Your task to perform on an android device: Go to Maps Image 0: 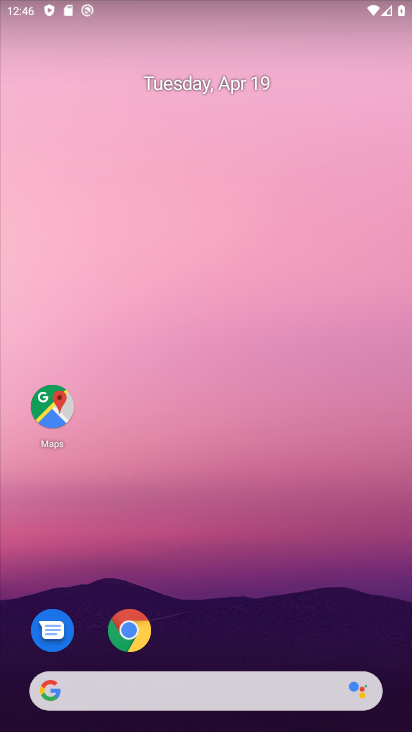
Step 0: drag from (223, 631) to (333, 121)
Your task to perform on an android device: Go to Maps Image 1: 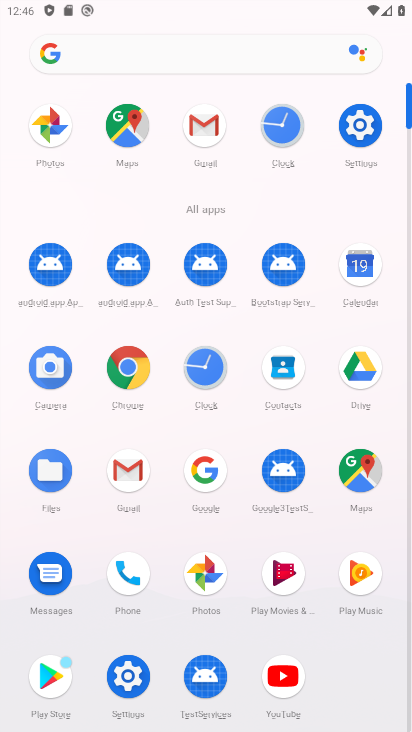
Step 1: click (125, 129)
Your task to perform on an android device: Go to Maps Image 2: 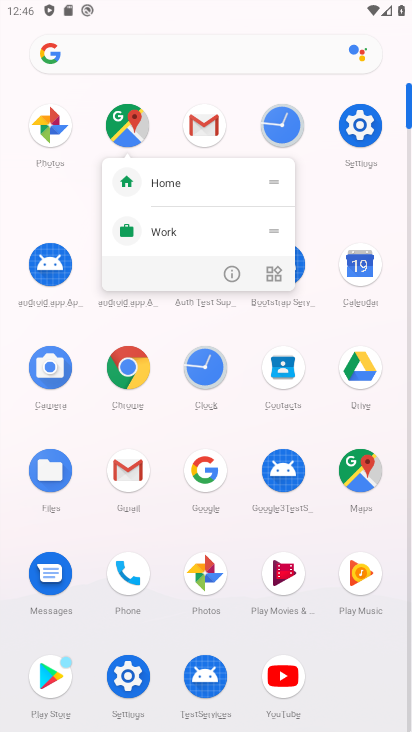
Step 2: click (129, 137)
Your task to perform on an android device: Go to Maps Image 3: 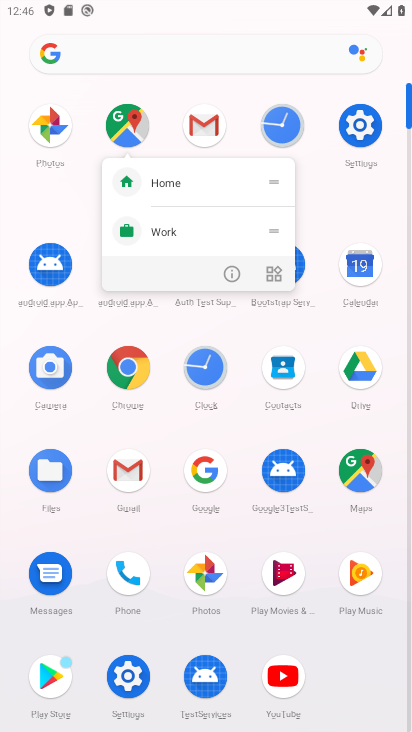
Step 3: click (130, 141)
Your task to perform on an android device: Go to Maps Image 4: 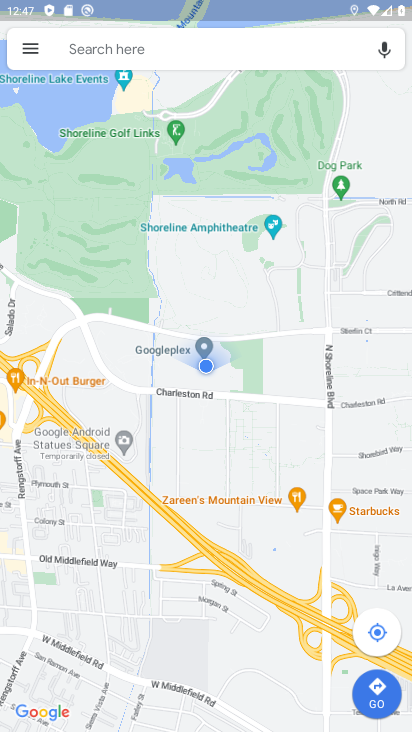
Step 4: task complete